Your task to perform on an android device: Go to Maps Image 0: 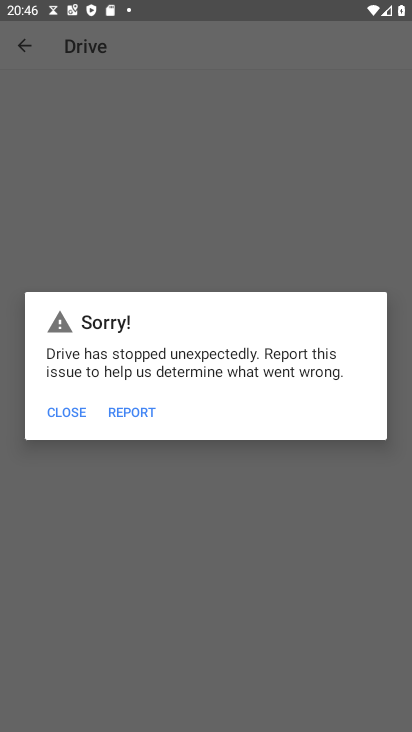
Step 0: press home button
Your task to perform on an android device: Go to Maps Image 1: 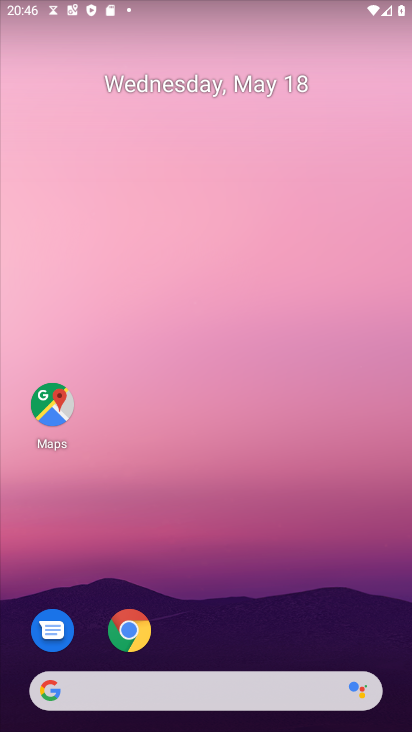
Step 1: click (46, 408)
Your task to perform on an android device: Go to Maps Image 2: 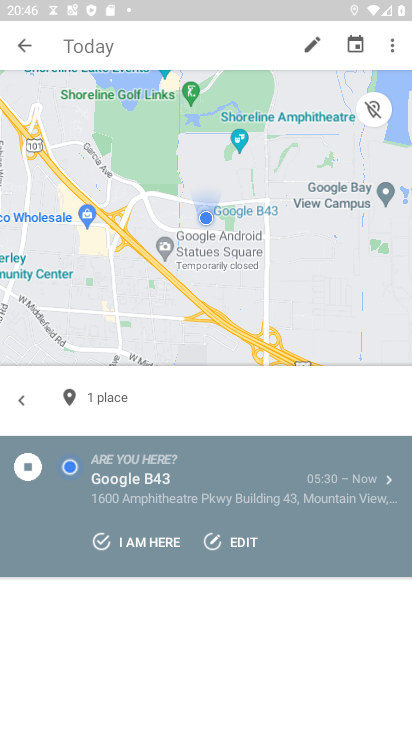
Step 2: click (29, 46)
Your task to perform on an android device: Go to Maps Image 3: 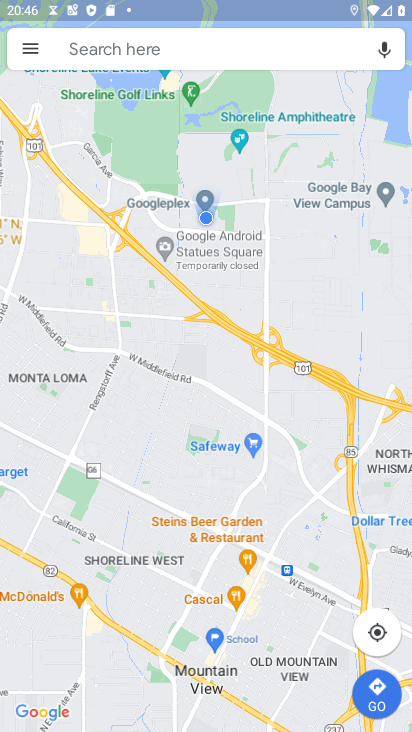
Step 3: task complete